Your task to perform on an android device: open app "Mercado Libre" Image 0: 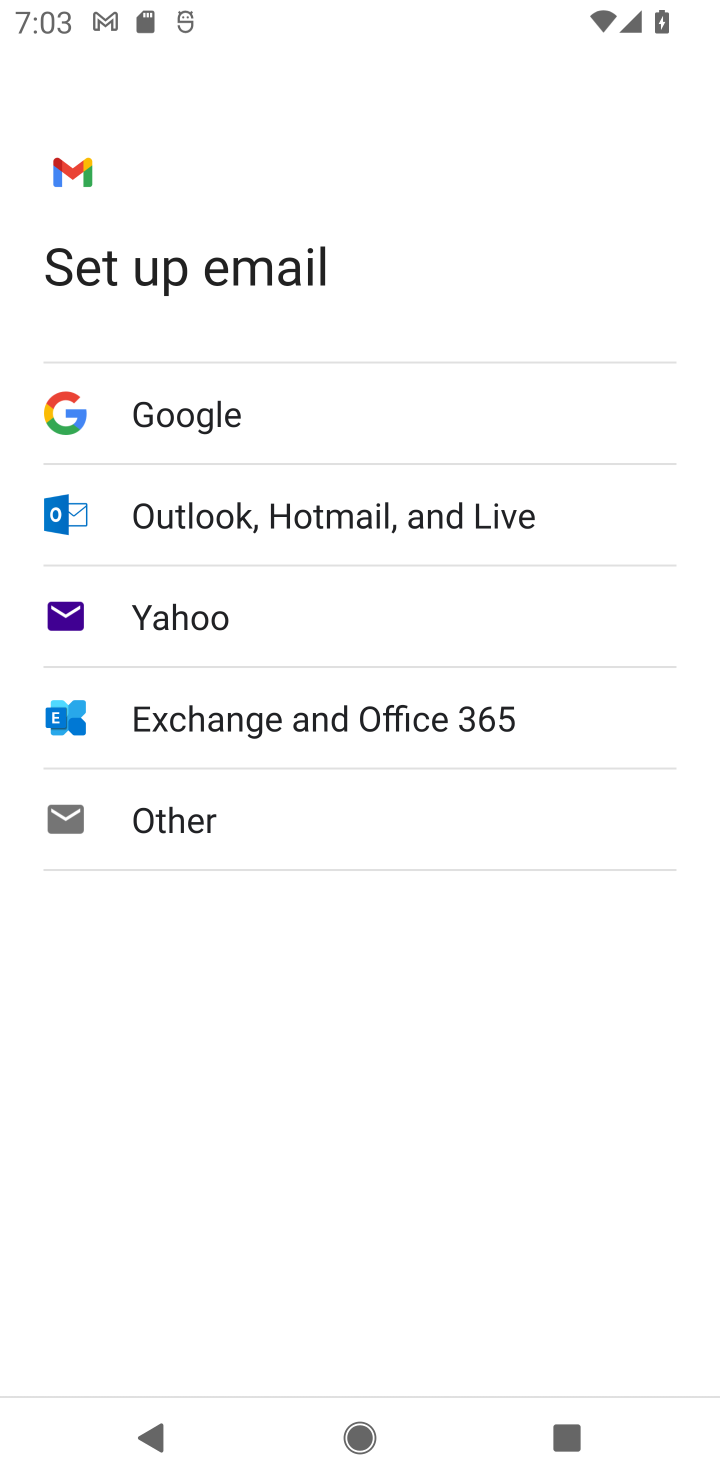
Step 0: press home button
Your task to perform on an android device: open app "Mercado Libre" Image 1: 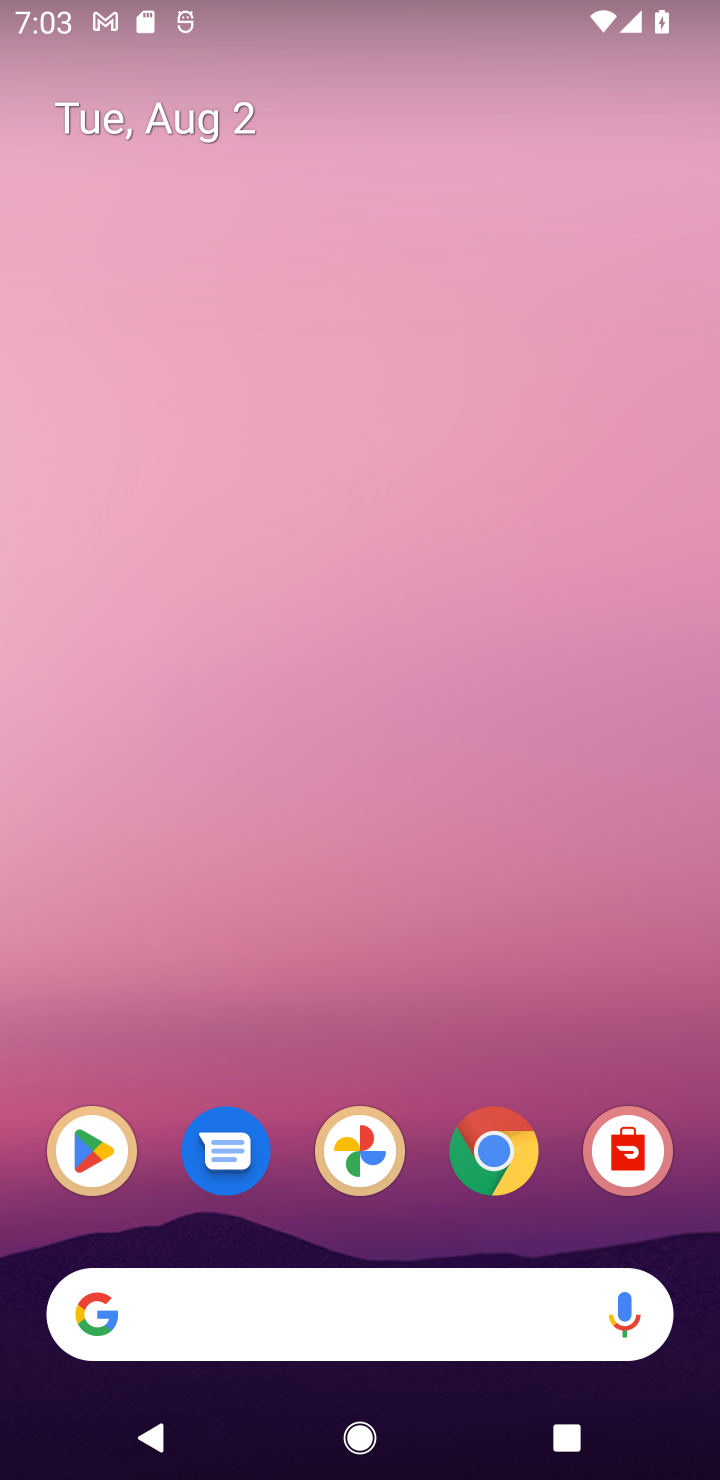
Step 1: click (86, 1164)
Your task to perform on an android device: open app "Mercado Libre" Image 2: 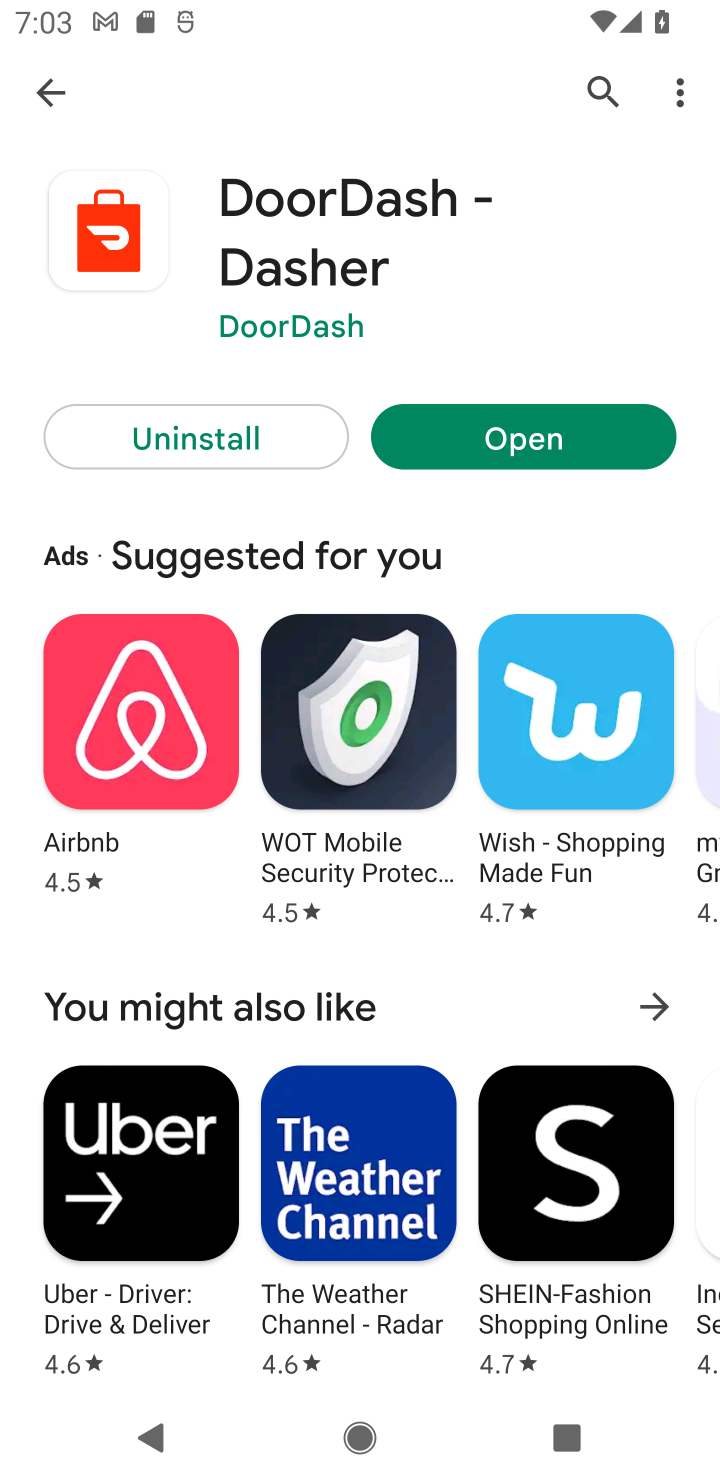
Step 2: click (599, 92)
Your task to perform on an android device: open app "Mercado Libre" Image 3: 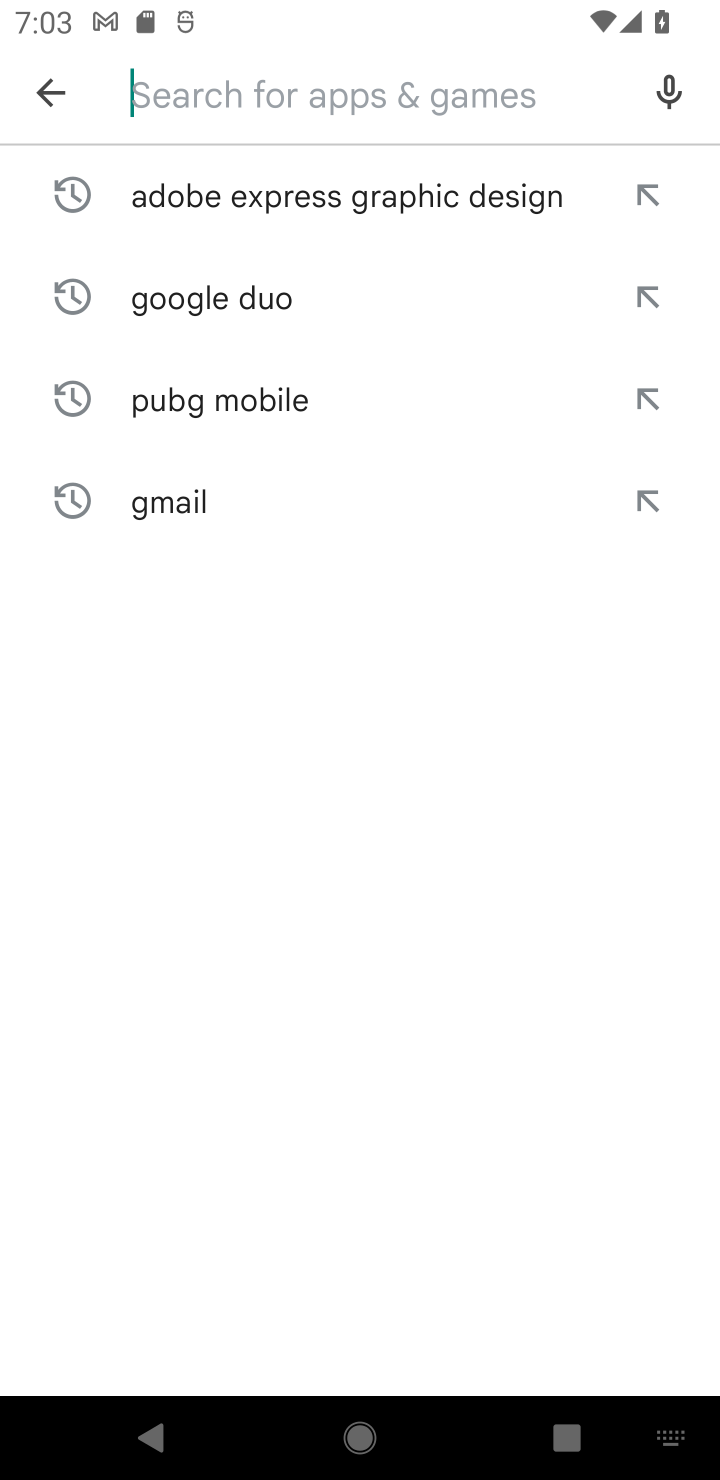
Step 3: type "Mercado Libre"
Your task to perform on an android device: open app "Mercado Libre" Image 4: 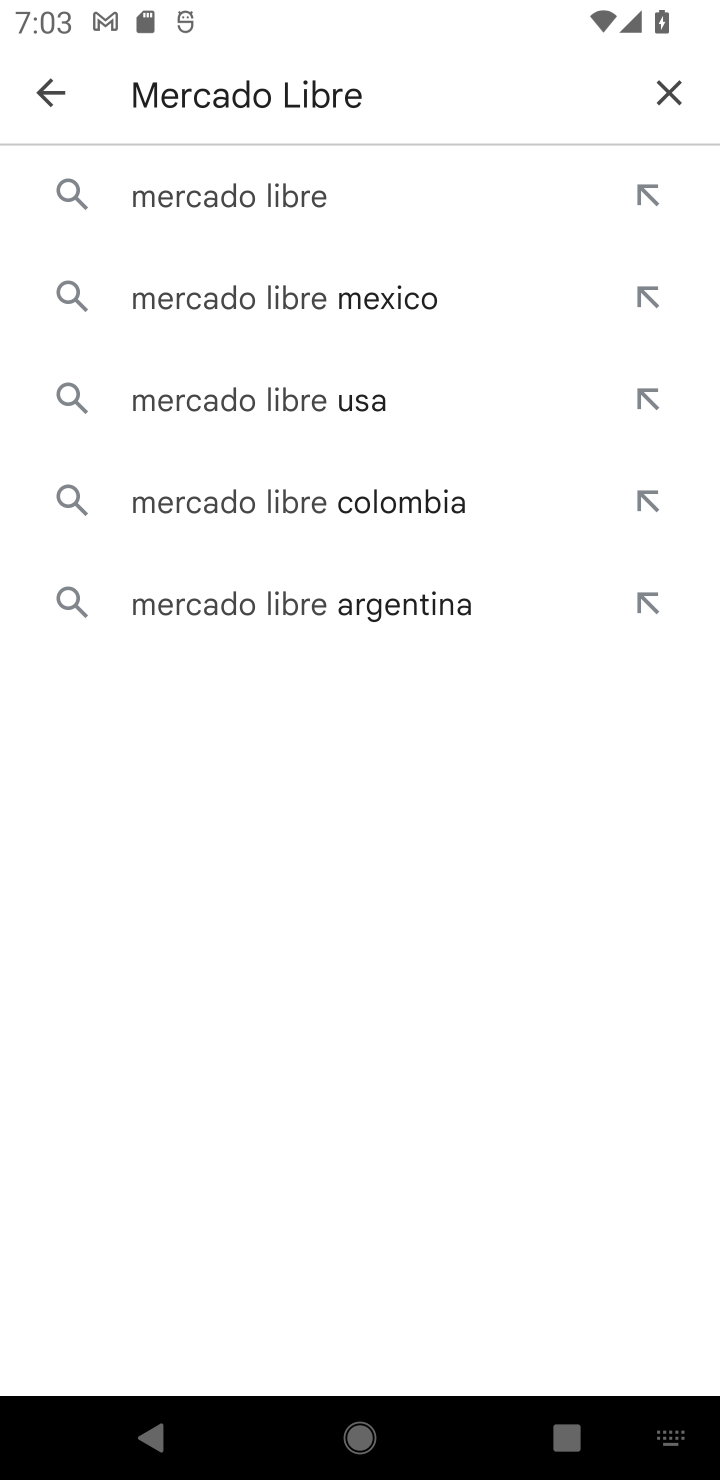
Step 4: click (355, 211)
Your task to perform on an android device: open app "Mercado Libre" Image 5: 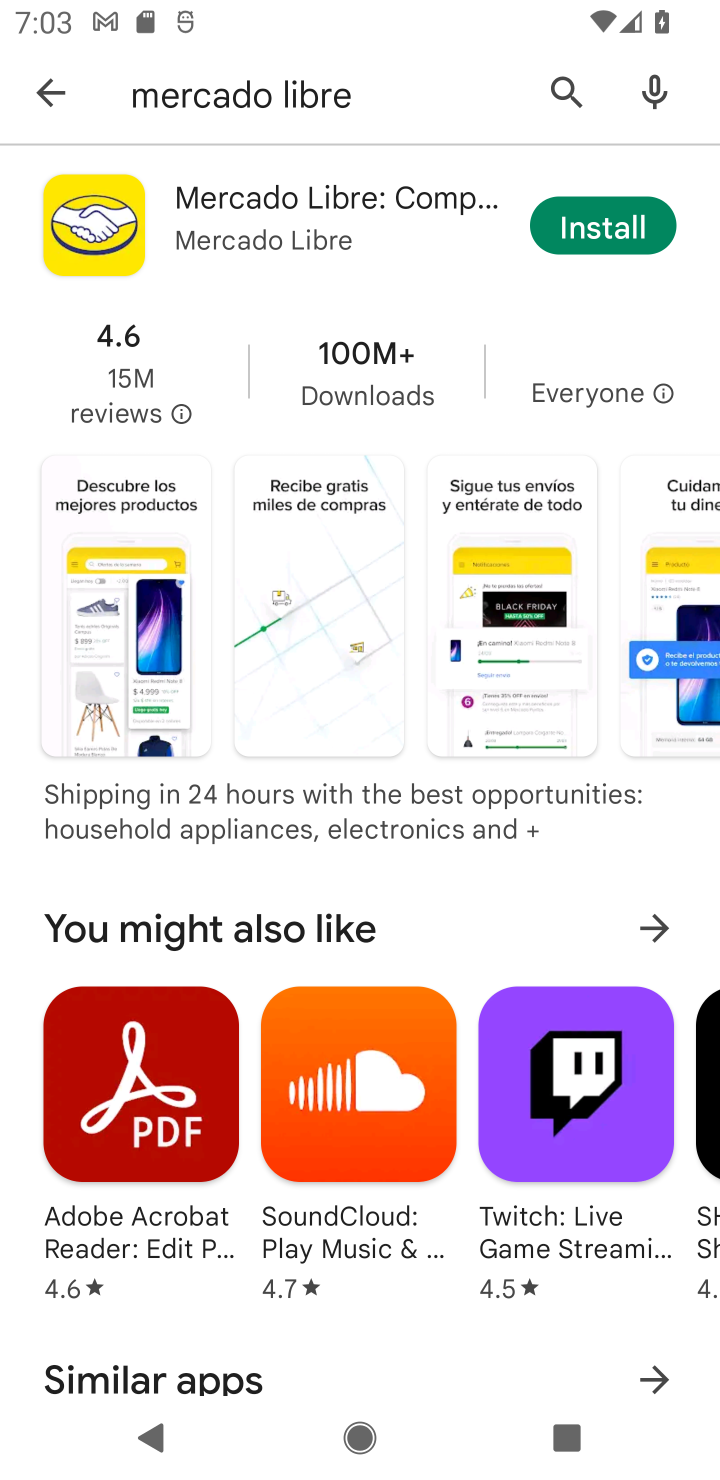
Step 5: click (308, 244)
Your task to perform on an android device: open app "Mercado Libre" Image 6: 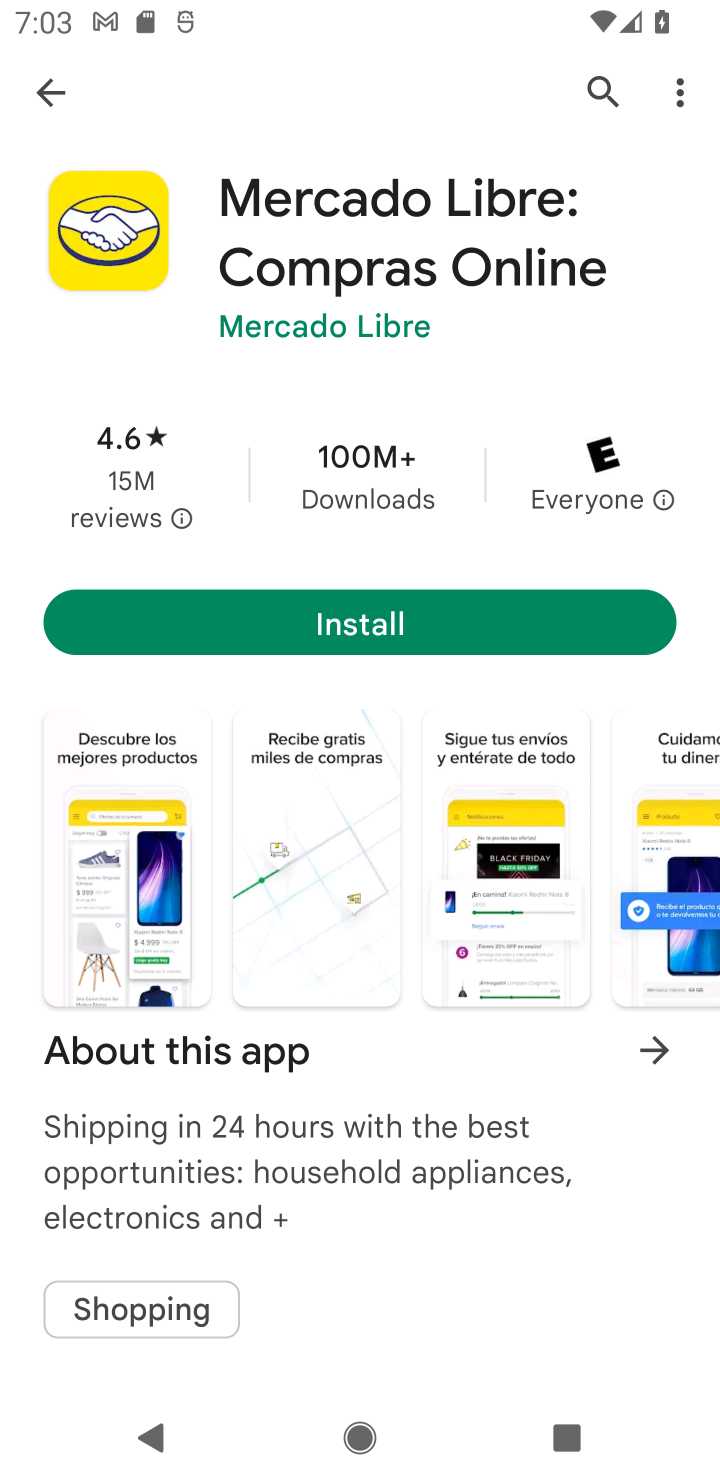
Step 6: task complete